Your task to perform on an android device: set default search engine in the chrome app Image 0: 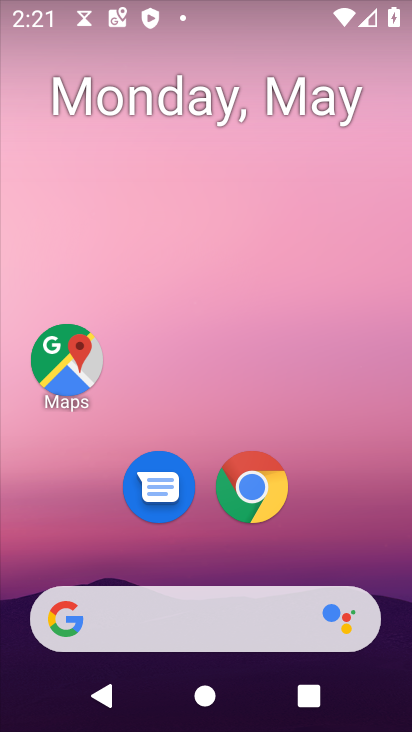
Step 0: drag from (372, 572) to (356, 99)
Your task to perform on an android device: set default search engine in the chrome app Image 1: 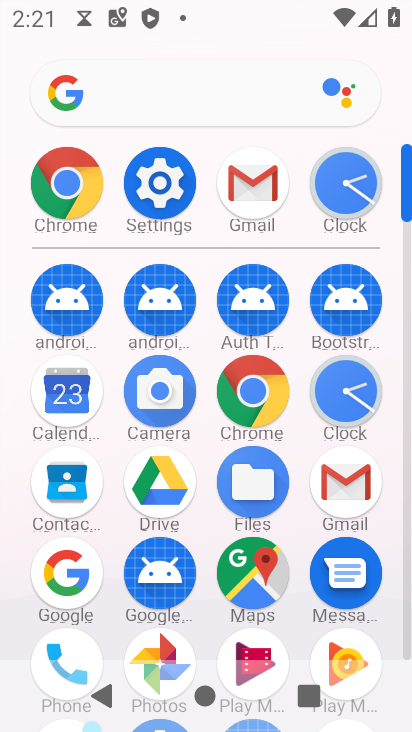
Step 1: click (60, 175)
Your task to perform on an android device: set default search engine in the chrome app Image 2: 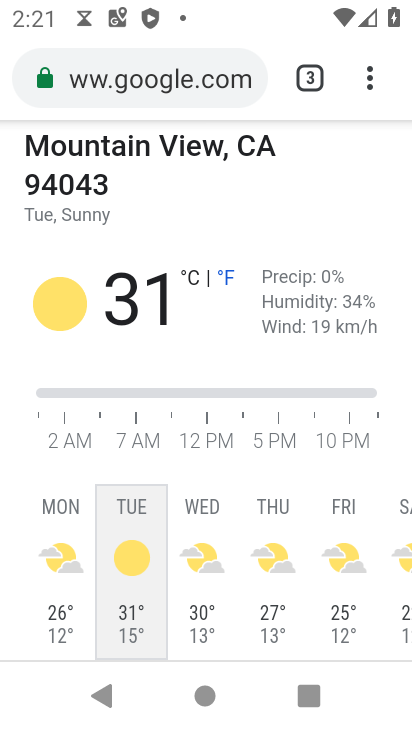
Step 2: click (387, 73)
Your task to perform on an android device: set default search engine in the chrome app Image 3: 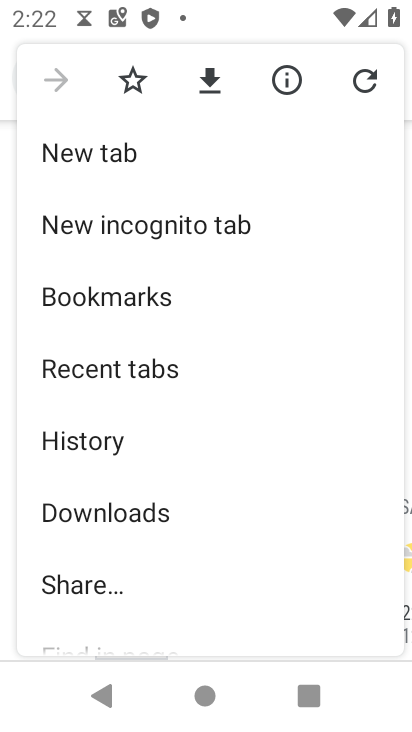
Step 3: drag from (124, 614) to (137, 266)
Your task to perform on an android device: set default search engine in the chrome app Image 4: 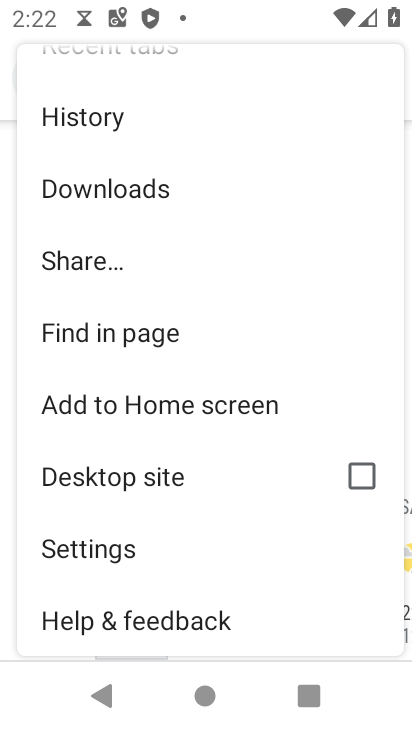
Step 4: click (154, 546)
Your task to perform on an android device: set default search engine in the chrome app Image 5: 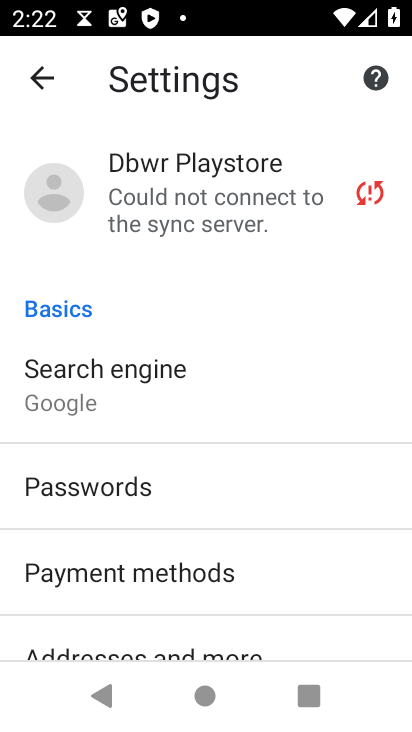
Step 5: click (221, 383)
Your task to perform on an android device: set default search engine in the chrome app Image 6: 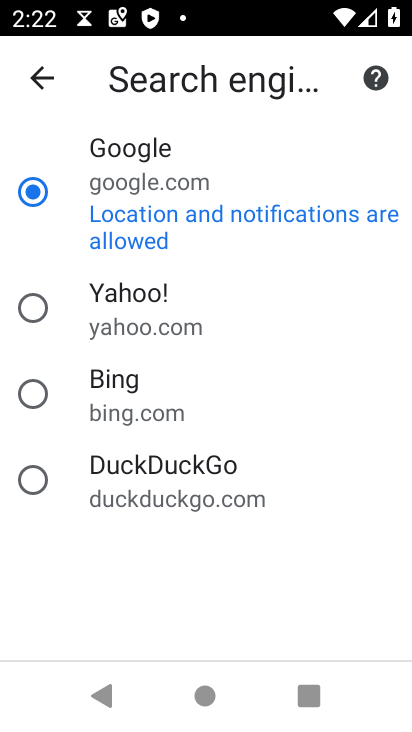
Step 6: click (205, 324)
Your task to perform on an android device: set default search engine in the chrome app Image 7: 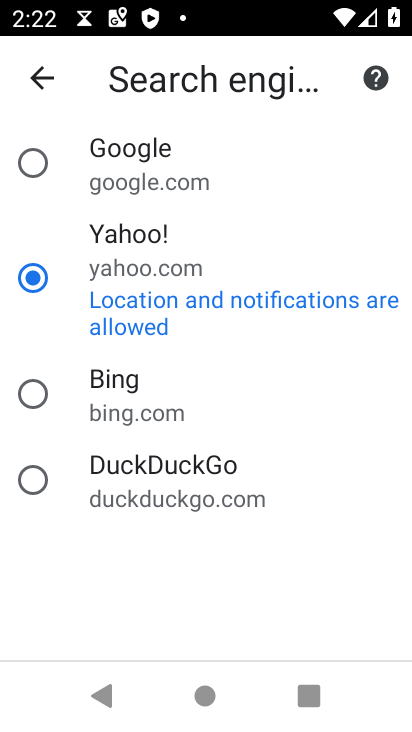
Step 7: task complete